Your task to perform on an android device: Clear the shopping cart on ebay.com. Search for "razer blade" on ebay.com, select the first entry, and add it to the cart. Image 0: 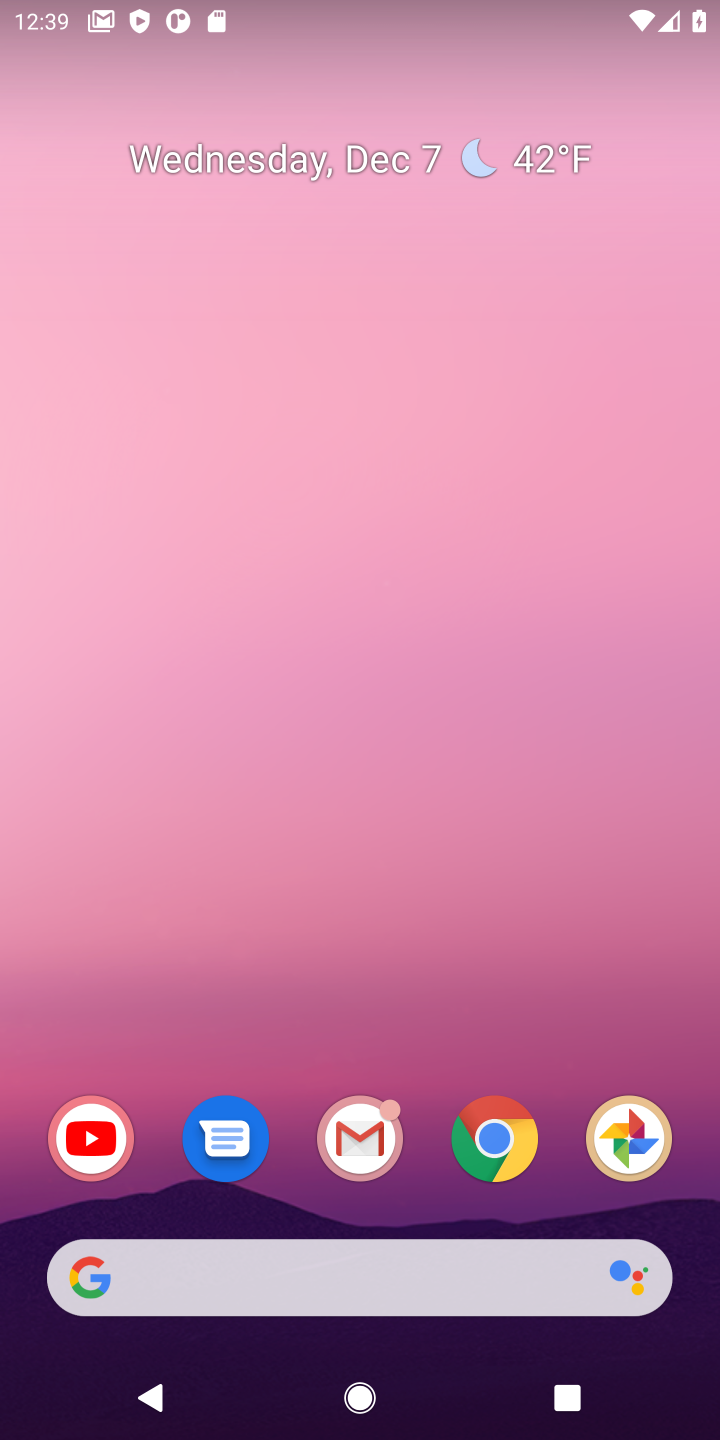
Step 0: drag from (278, 1234) to (297, 2)
Your task to perform on an android device: Clear the shopping cart on ebay.com. Search for "razer blade" on ebay.com, select the first entry, and add it to the cart. Image 1: 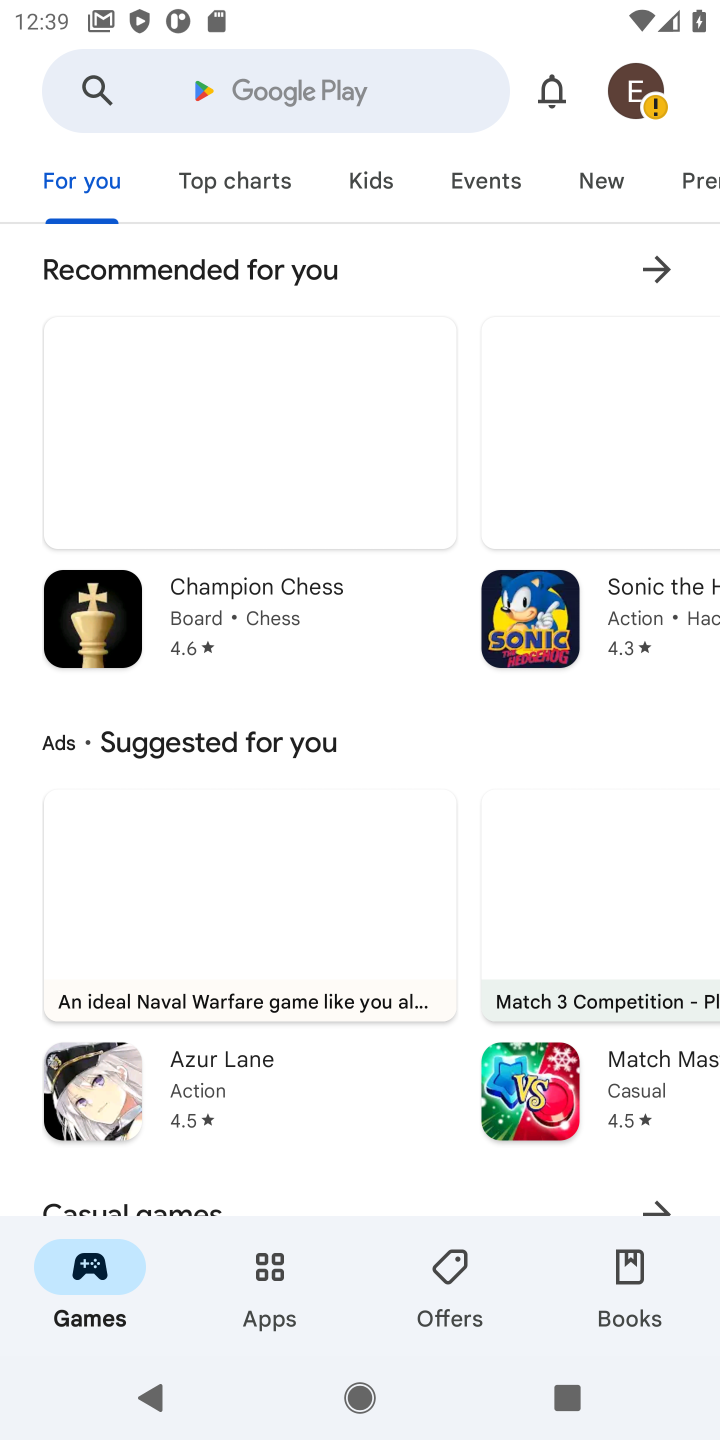
Step 1: press home button
Your task to perform on an android device: Clear the shopping cart on ebay.com. Search for "razer blade" on ebay.com, select the first entry, and add it to the cart. Image 2: 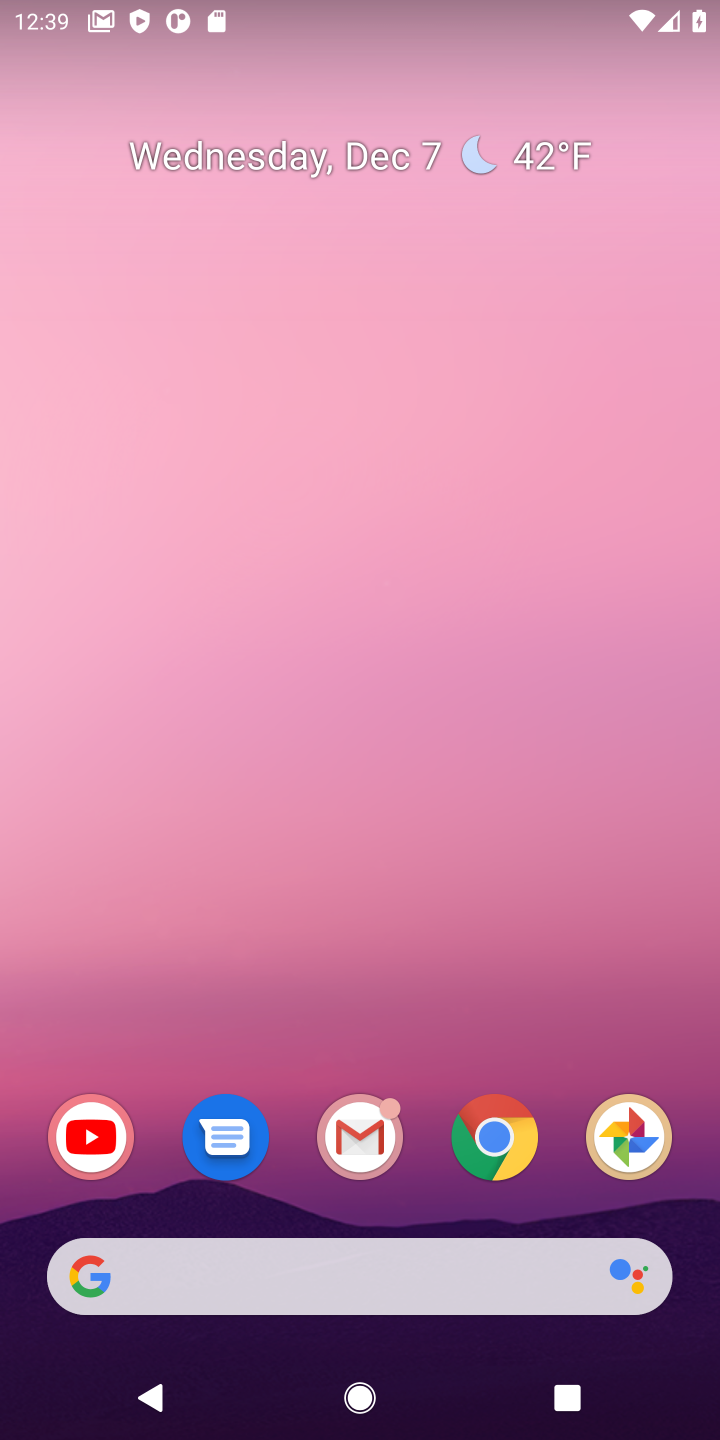
Step 2: drag from (216, 1206) to (166, 825)
Your task to perform on an android device: Clear the shopping cart on ebay.com. Search for "razer blade" on ebay.com, select the first entry, and add it to the cart. Image 3: 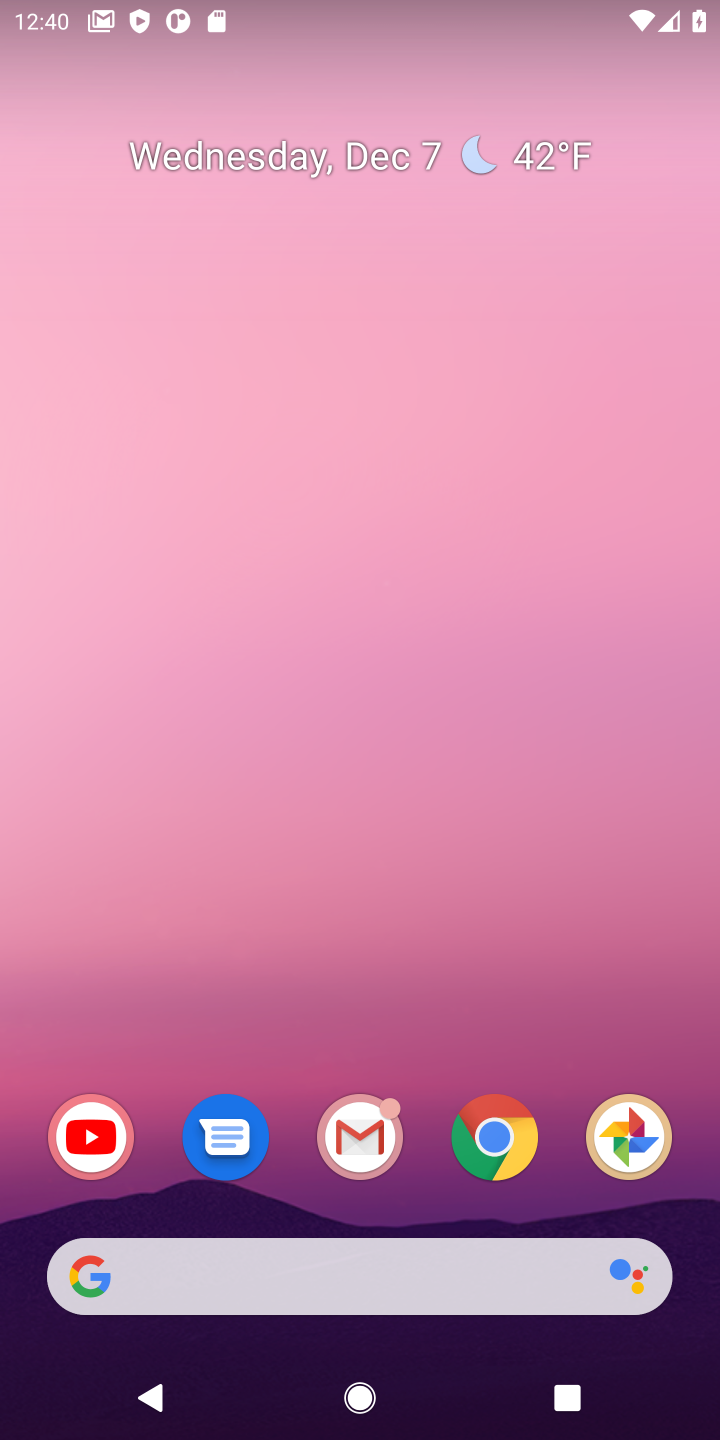
Step 3: drag from (371, 1254) to (377, 227)
Your task to perform on an android device: Clear the shopping cart on ebay.com. Search for "razer blade" on ebay.com, select the first entry, and add it to the cart. Image 4: 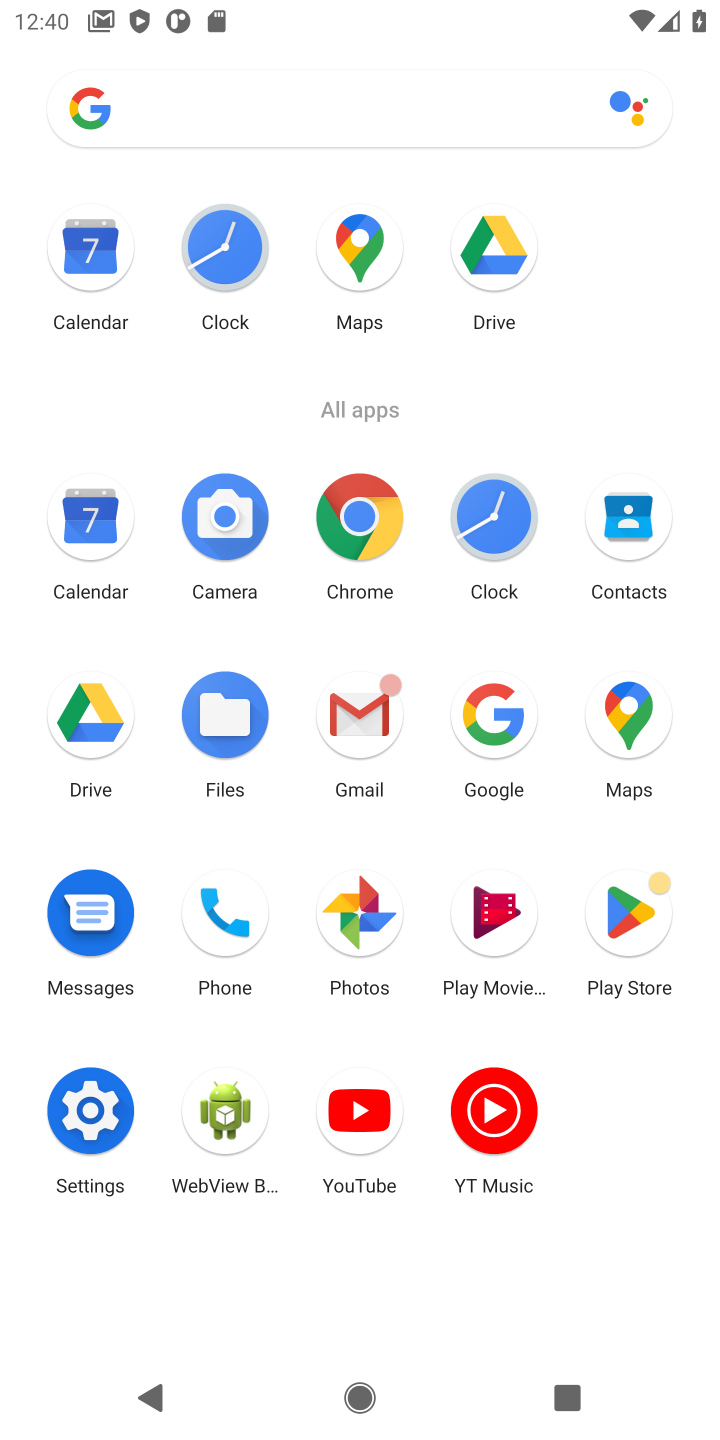
Step 4: click (488, 737)
Your task to perform on an android device: Clear the shopping cart on ebay.com. Search for "razer blade" on ebay.com, select the first entry, and add it to the cart. Image 5: 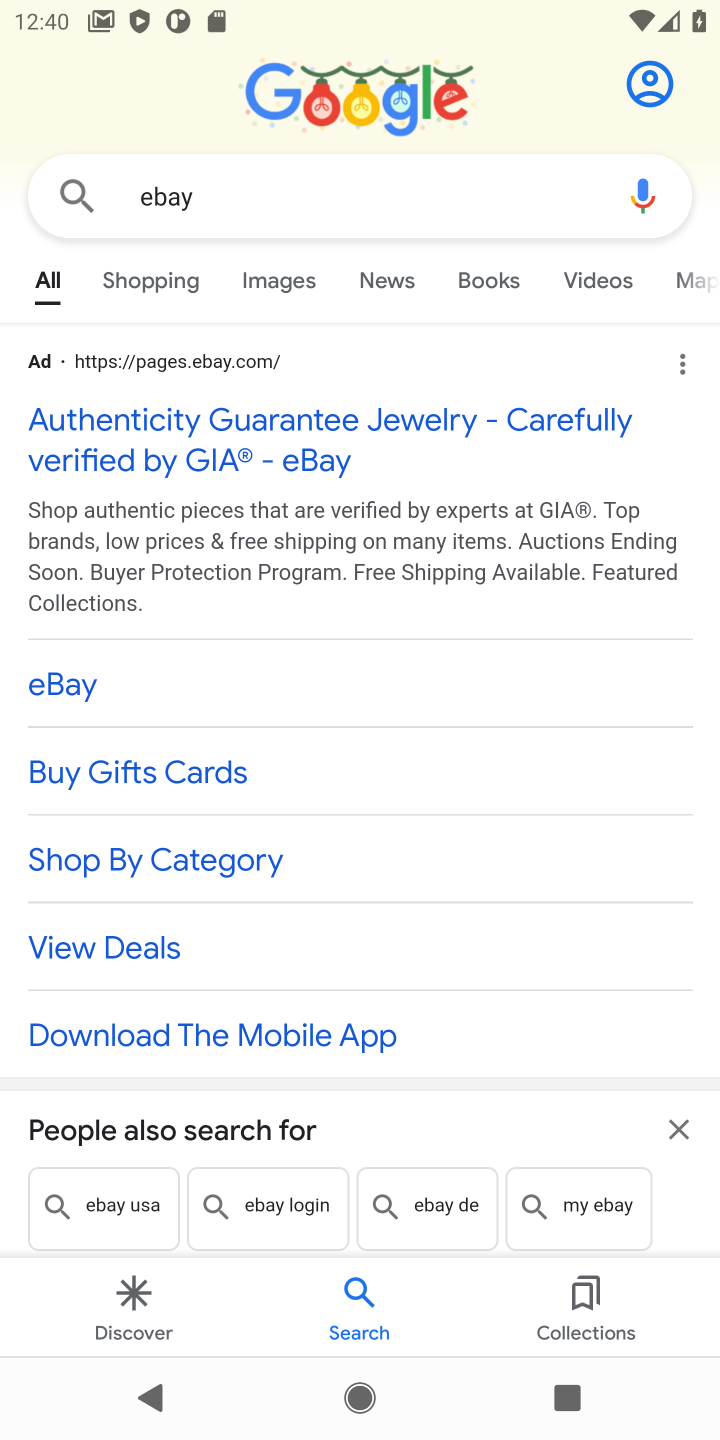
Step 5: click (151, 203)
Your task to perform on an android device: Clear the shopping cart on ebay.com. Search for "razer blade" on ebay.com, select the first entry, and add it to the cart. Image 6: 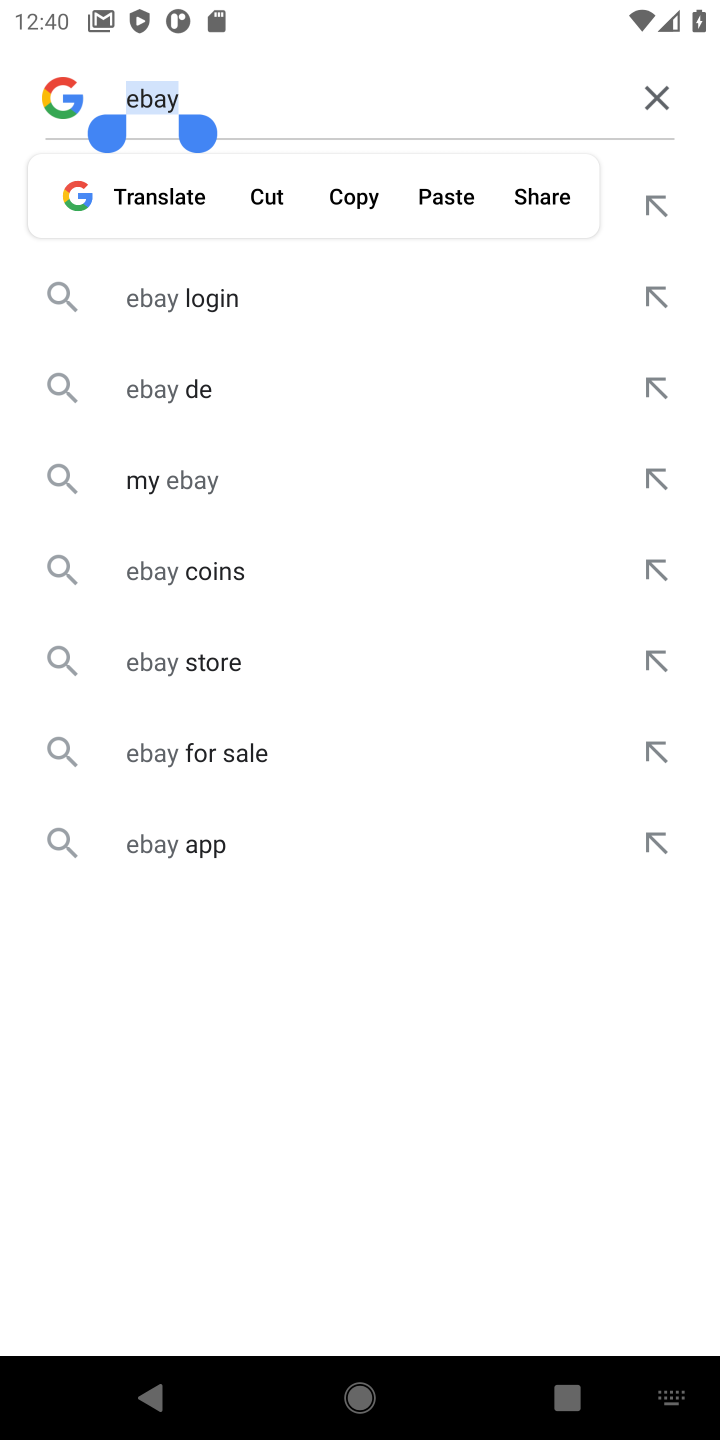
Step 6: click (658, 104)
Your task to perform on an android device: Clear the shopping cart on ebay.com. Search for "razer blade" on ebay.com, select the first entry, and add it to the cart. Image 7: 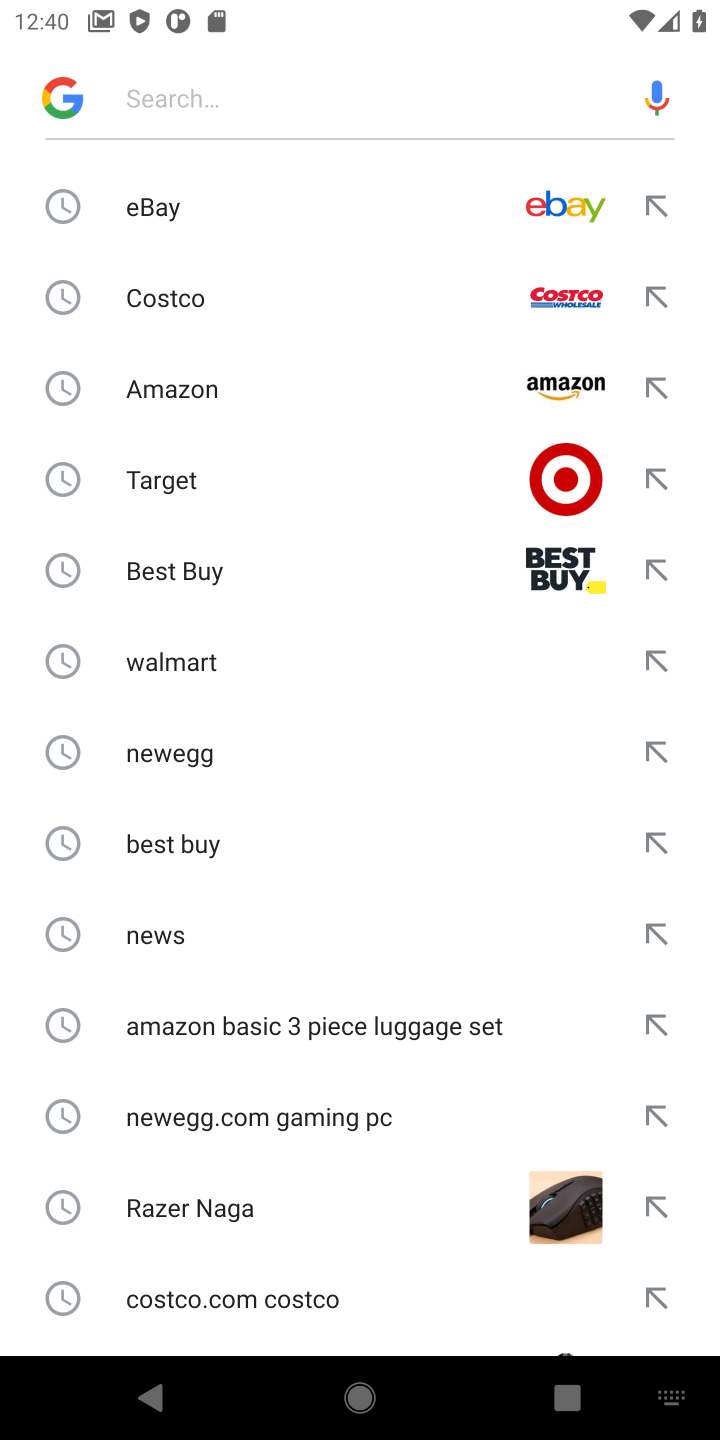
Step 7: click (550, 213)
Your task to perform on an android device: Clear the shopping cart on ebay.com. Search for "razer blade" on ebay.com, select the first entry, and add it to the cart. Image 8: 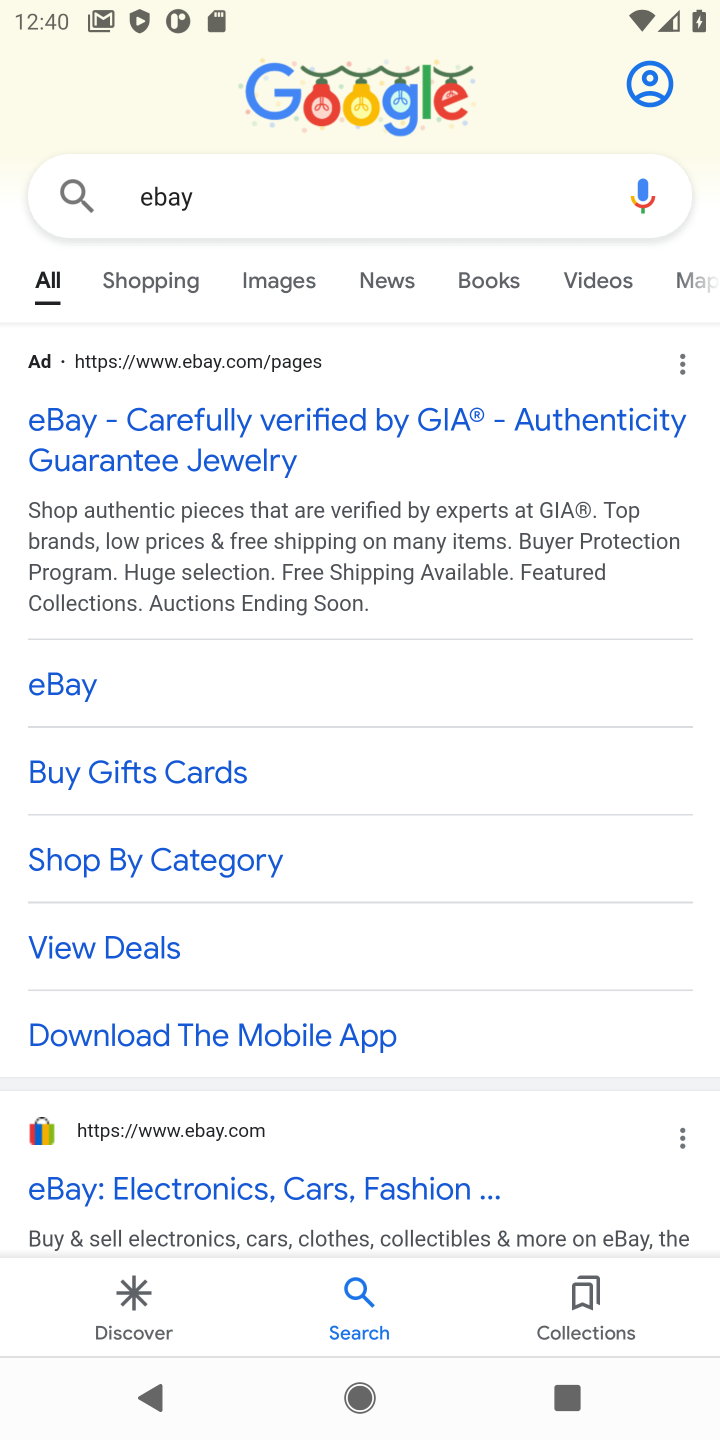
Step 8: click (230, 459)
Your task to perform on an android device: Clear the shopping cart on ebay.com. Search for "razer blade" on ebay.com, select the first entry, and add it to the cart. Image 9: 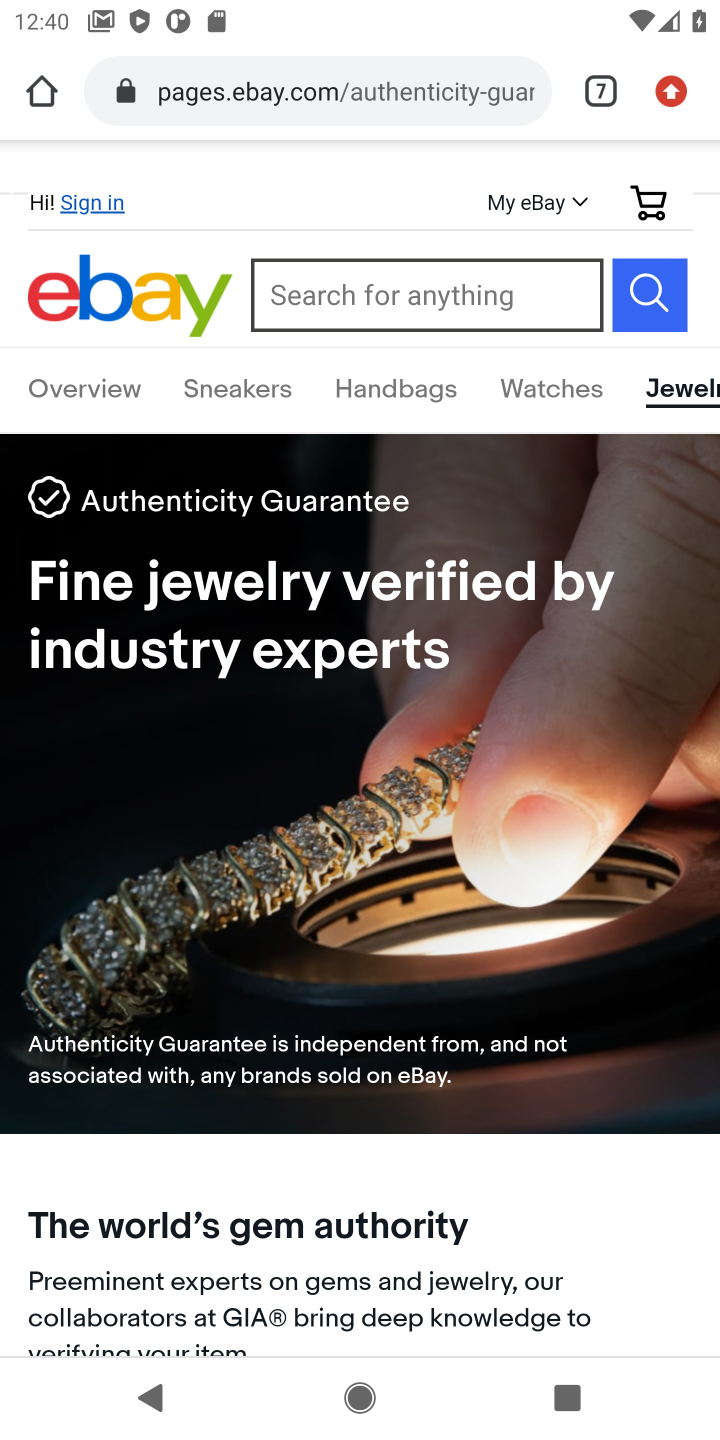
Step 9: click (402, 300)
Your task to perform on an android device: Clear the shopping cart on ebay.com. Search for "razer blade" on ebay.com, select the first entry, and add it to the cart. Image 10: 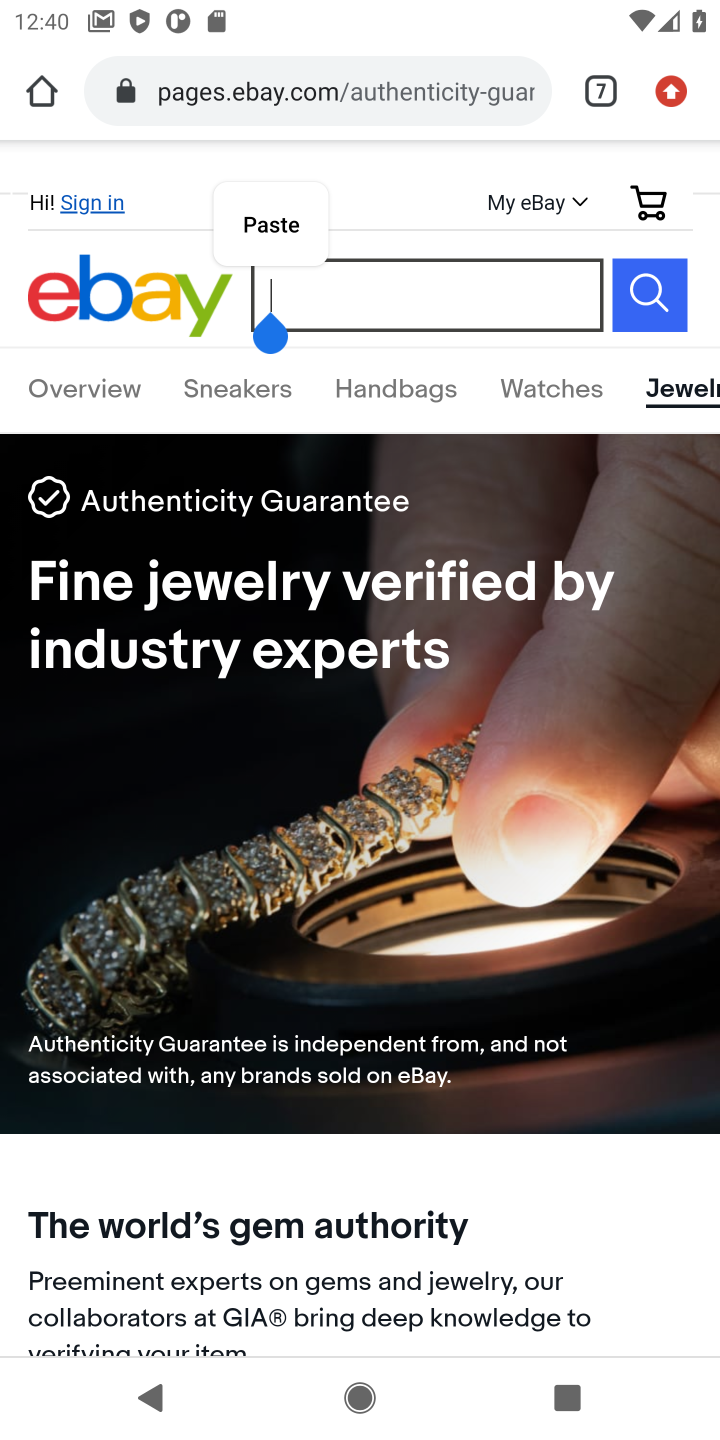
Step 10: type "razer blade"
Your task to perform on an android device: Clear the shopping cart on ebay.com. Search for "razer blade" on ebay.com, select the first entry, and add it to the cart. Image 11: 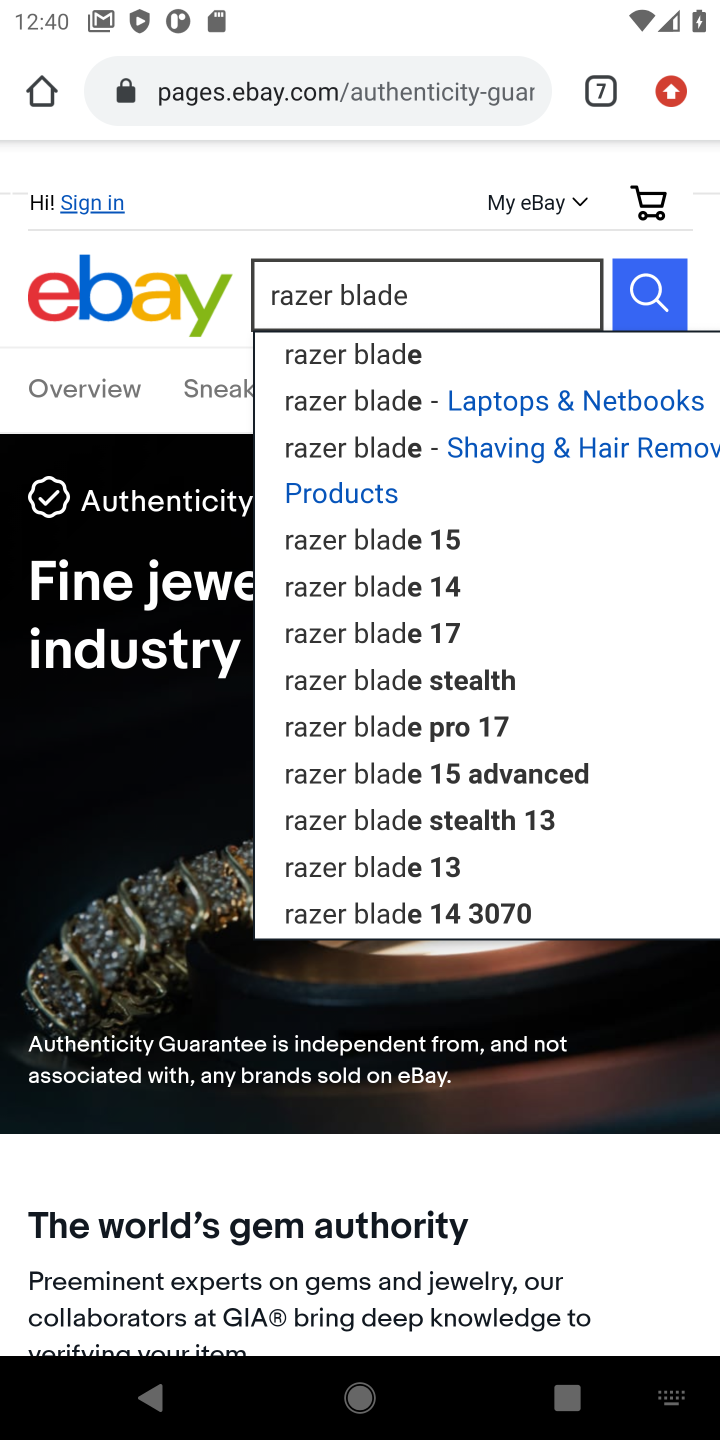
Step 11: click (302, 357)
Your task to perform on an android device: Clear the shopping cart on ebay.com. Search for "razer blade" on ebay.com, select the first entry, and add it to the cart. Image 12: 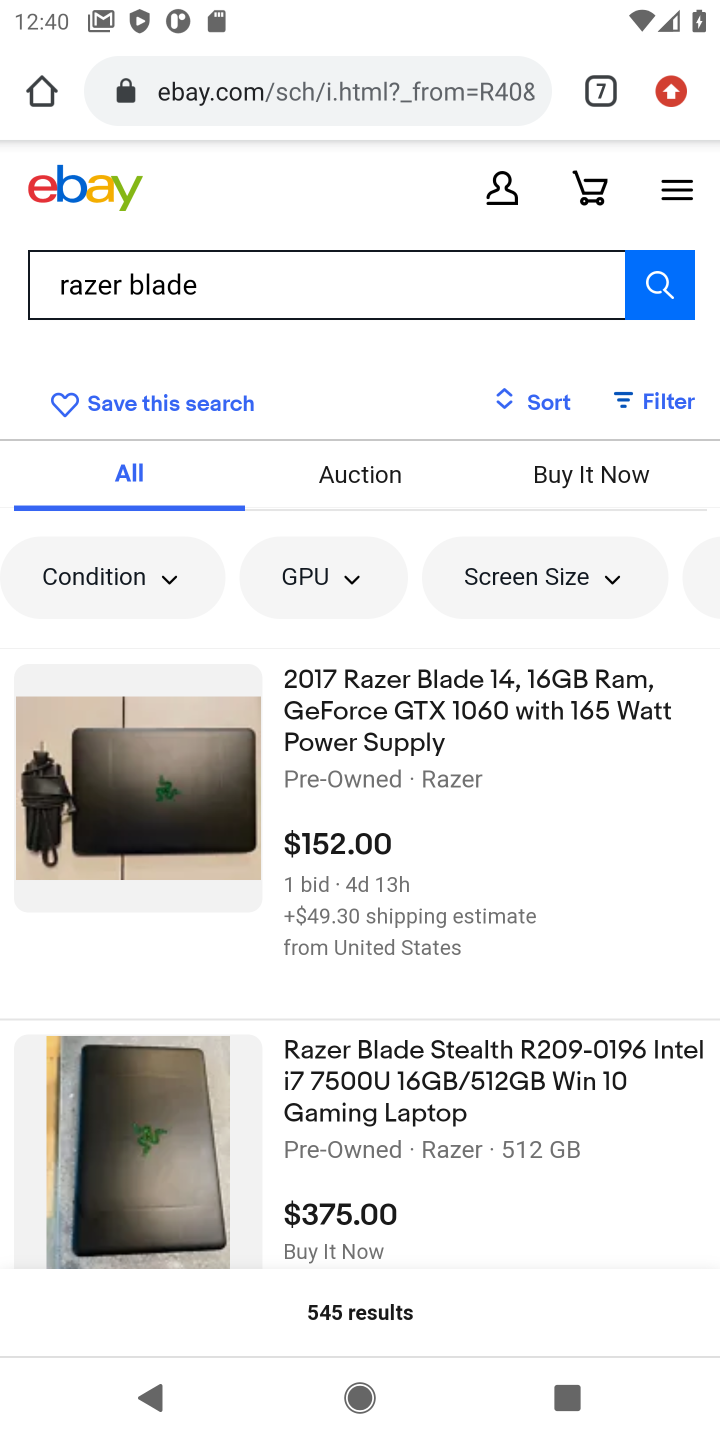
Step 12: click (367, 733)
Your task to perform on an android device: Clear the shopping cart on ebay.com. Search for "razer blade" on ebay.com, select the first entry, and add it to the cart. Image 13: 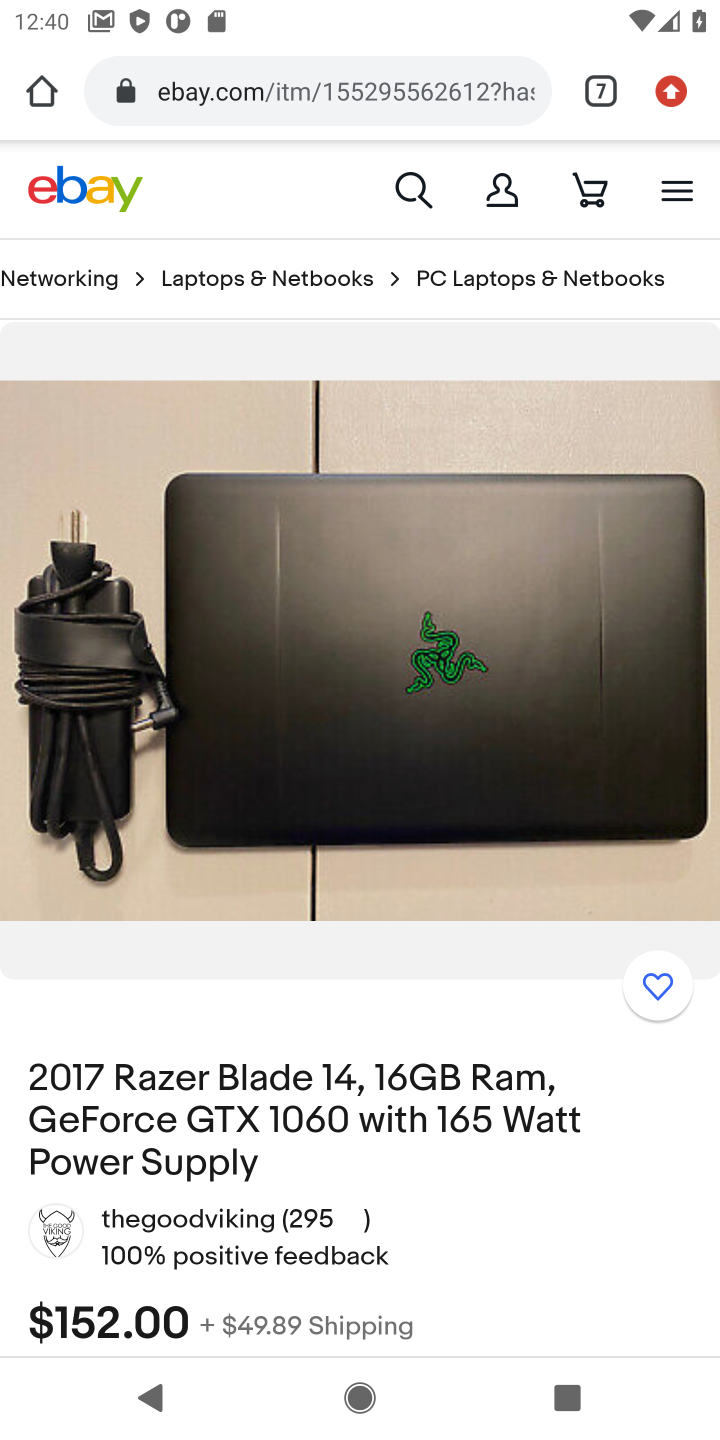
Step 13: drag from (296, 610) to (289, 243)
Your task to perform on an android device: Clear the shopping cart on ebay.com. Search for "razer blade" on ebay.com, select the first entry, and add it to the cart. Image 14: 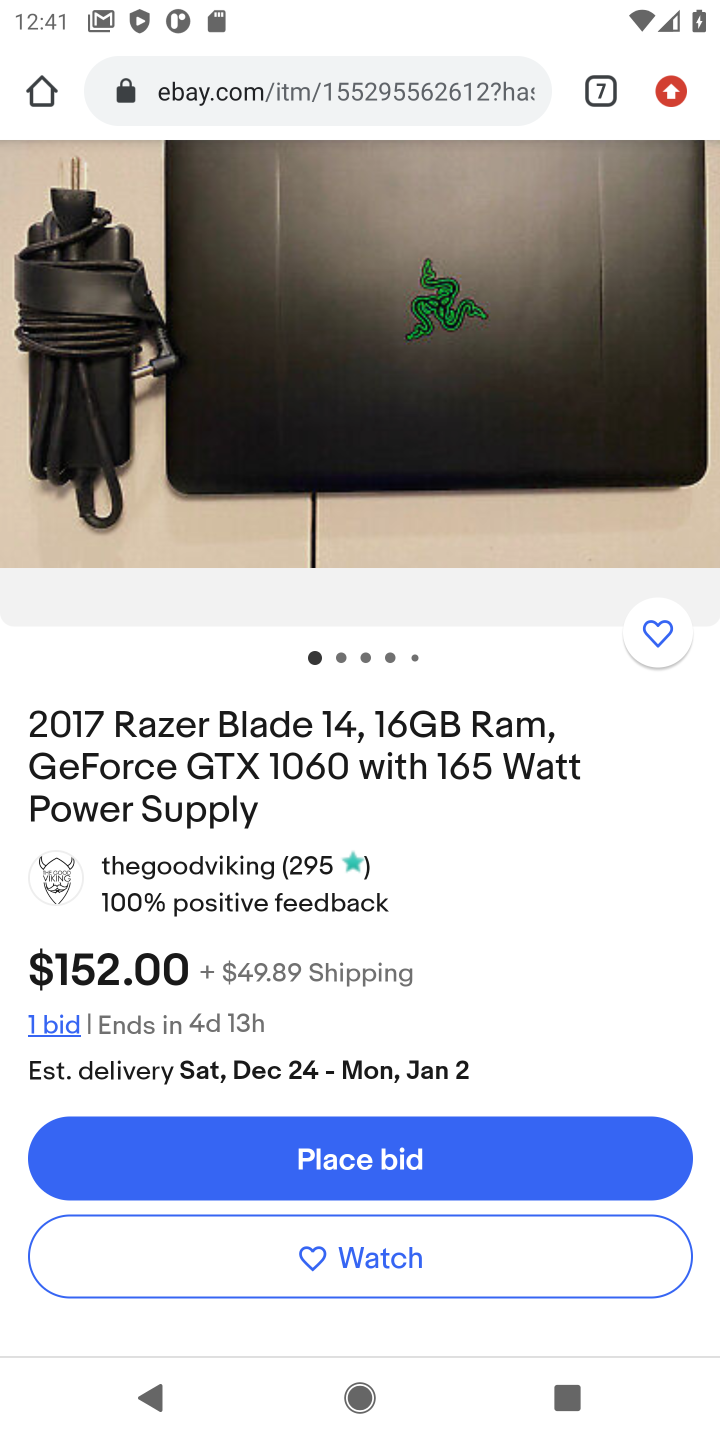
Step 14: drag from (313, 978) to (259, 635)
Your task to perform on an android device: Clear the shopping cart on ebay.com. Search for "razer blade" on ebay.com, select the first entry, and add it to the cart. Image 15: 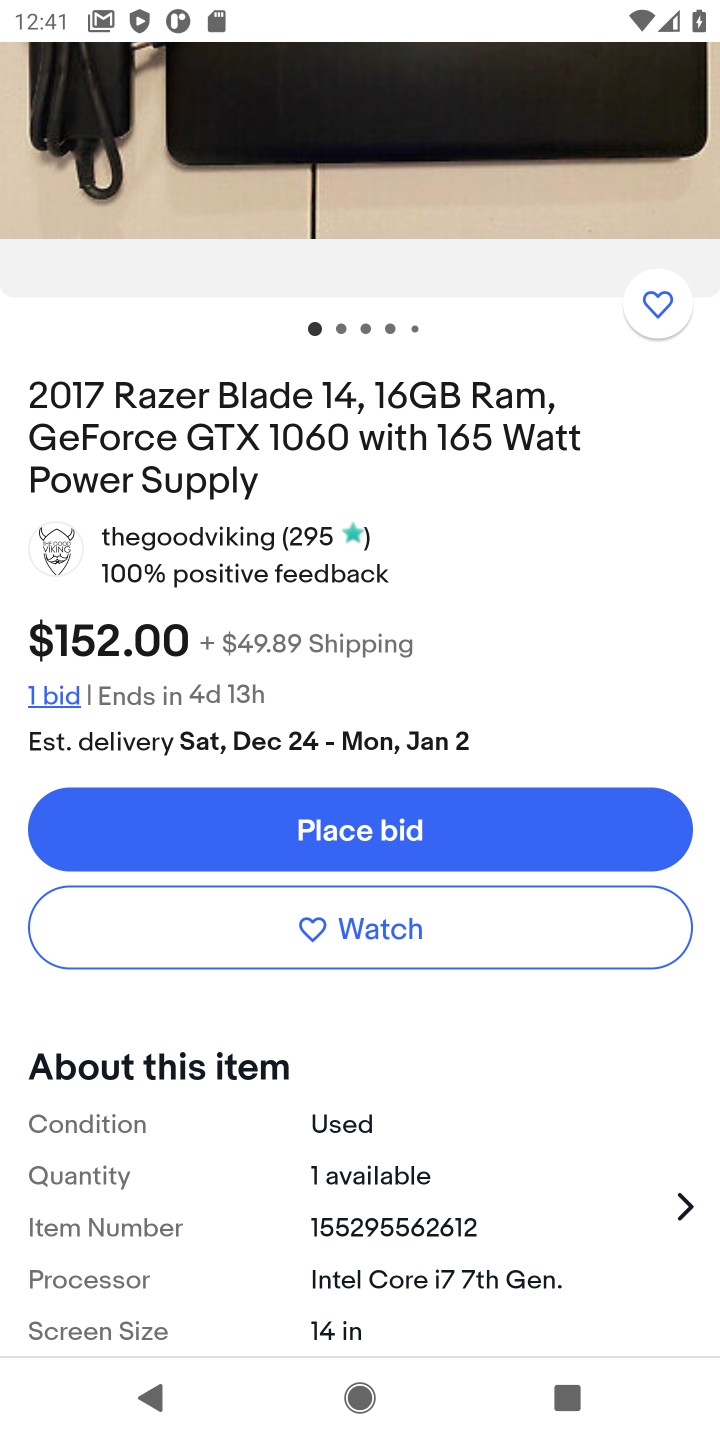
Step 15: drag from (196, 1292) to (208, 774)
Your task to perform on an android device: Clear the shopping cart on ebay.com. Search for "razer blade" on ebay.com, select the first entry, and add it to the cart. Image 16: 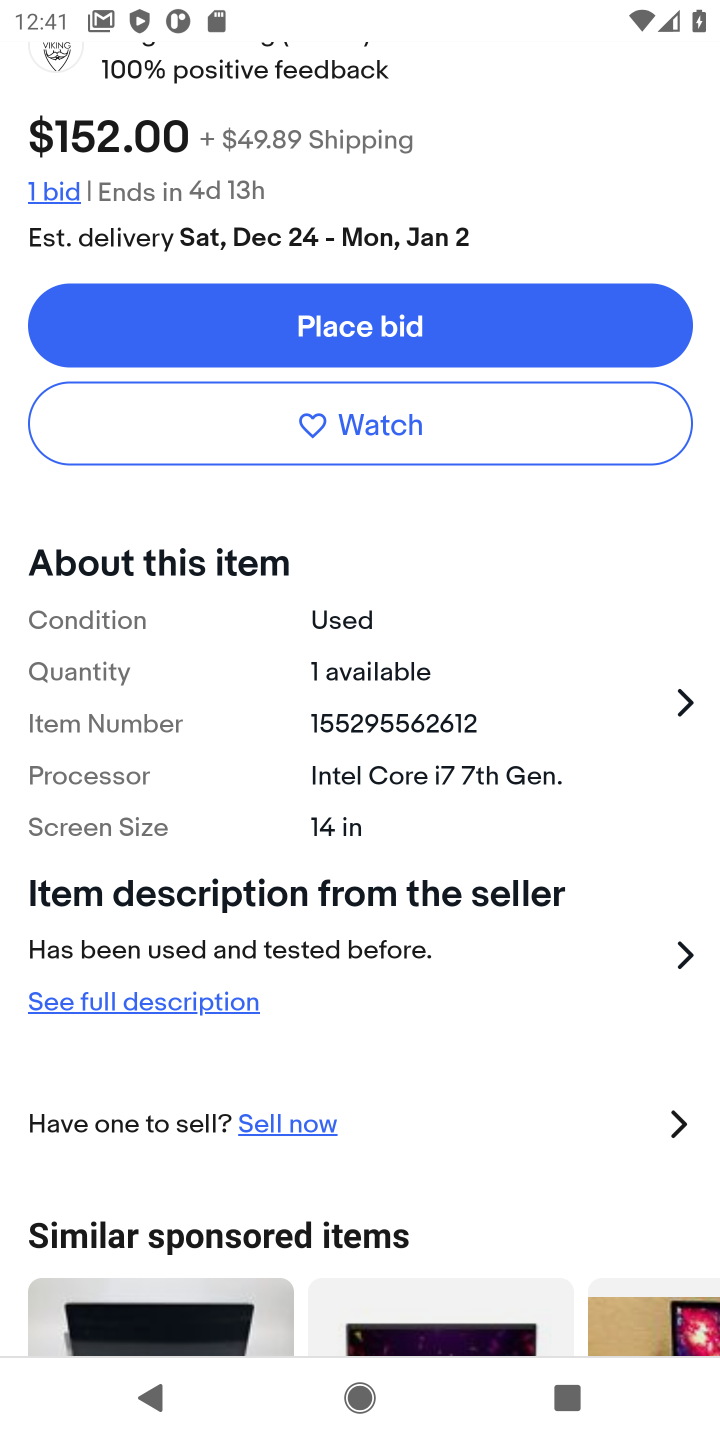
Step 16: click (338, 333)
Your task to perform on an android device: Clear the shopping cart on ebay.com. Search for "razer blade" on ebay.com, select the first entry, and add it to the cart. Image 17: 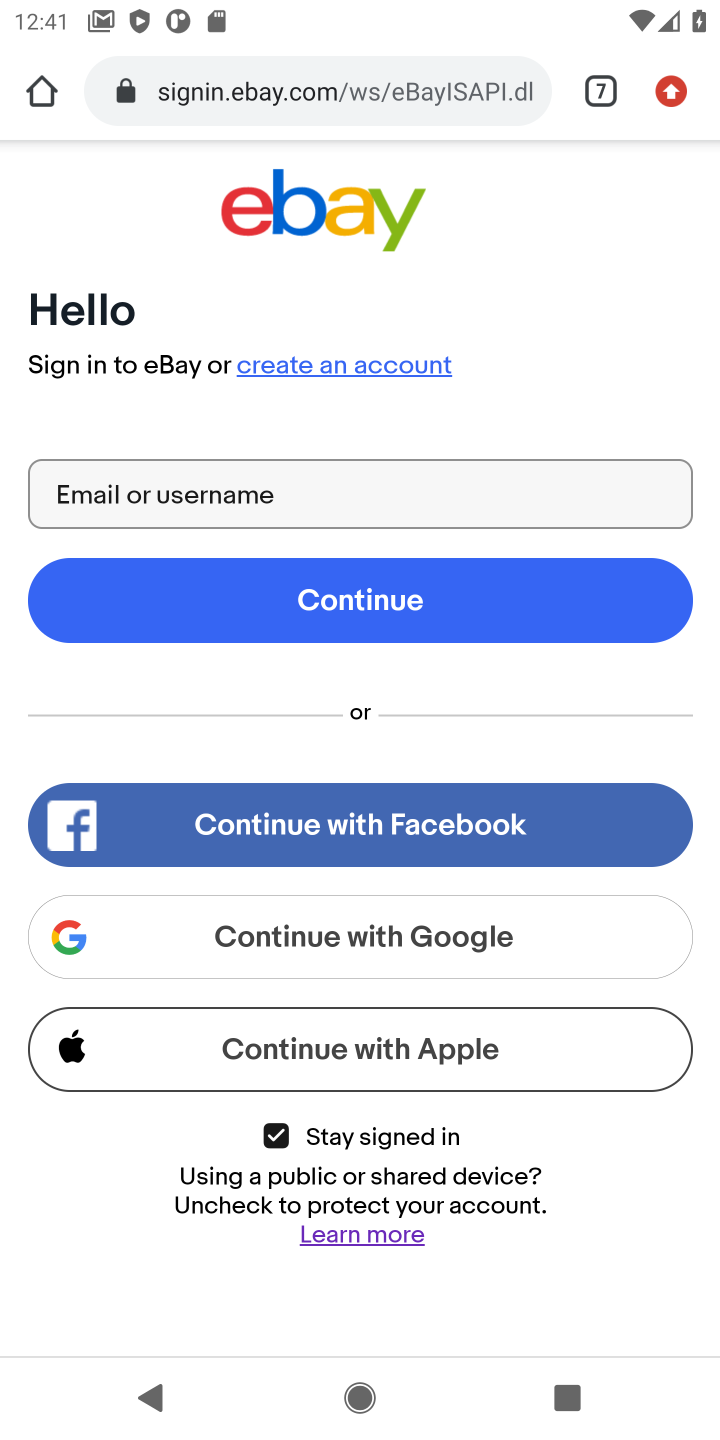
Step 17: task complete